Your task to perform on an android device: Open Wikipedia Image 0: 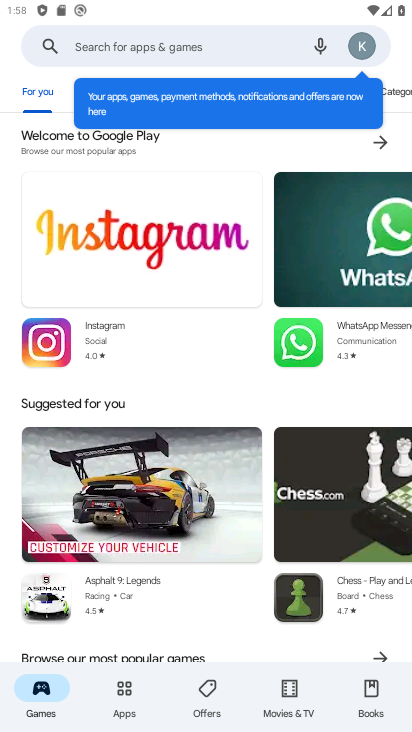
Step 0: press home button
Your task to perform on an android device: Open Wikipedia Image 1: 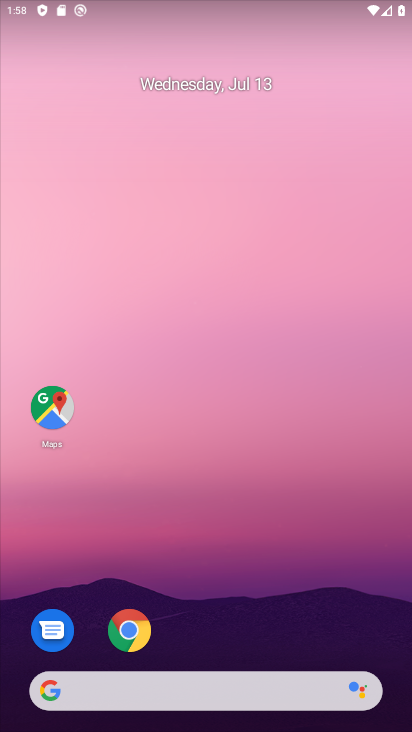
Step 1: click (143, 640)
Your task to perform on an android device: Open Wikipedia Image 2: 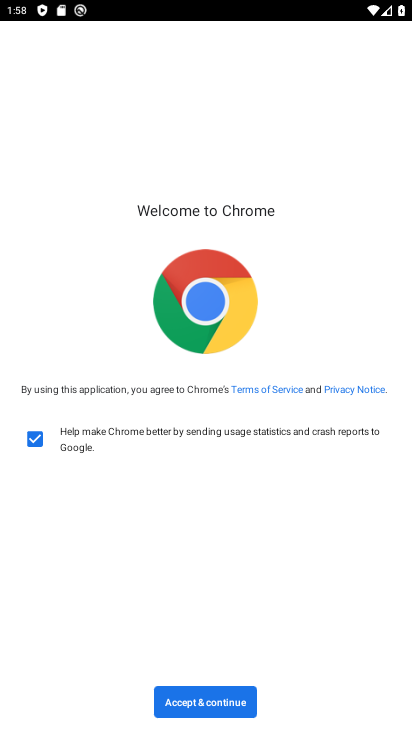
Step 2: click (189, 692)
Your task to perform on an android device: Open Wikipedia Image 3: 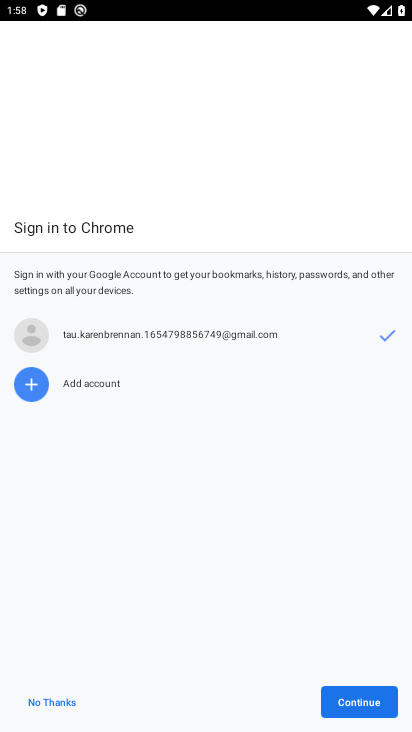
Step 3: click (350, 700)
Your task to perform on an android device: Open Wikipedia Image 4: 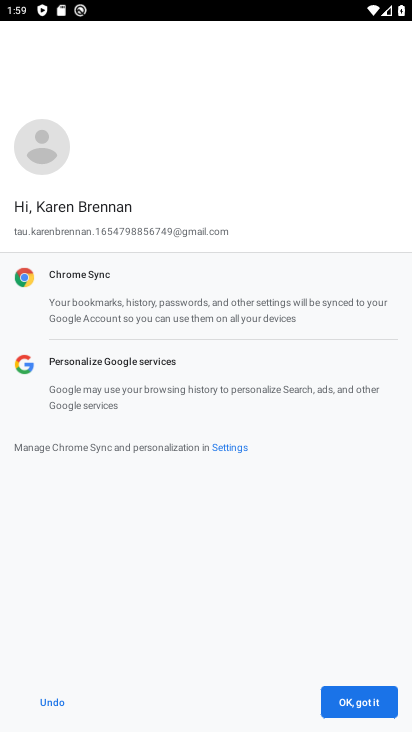
Step 4: click (362, 692)
Your task to perform on an android device: Open Wikipedia Image 5: 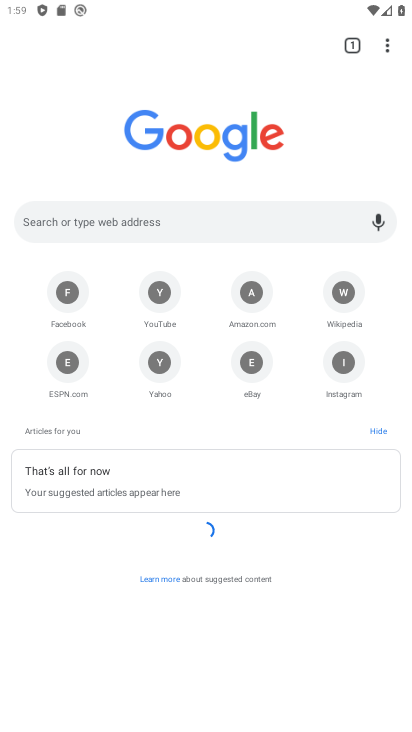
Step 5: click (212, 219)
Your task to perform on an android device: Open Wikipedia Image 6: 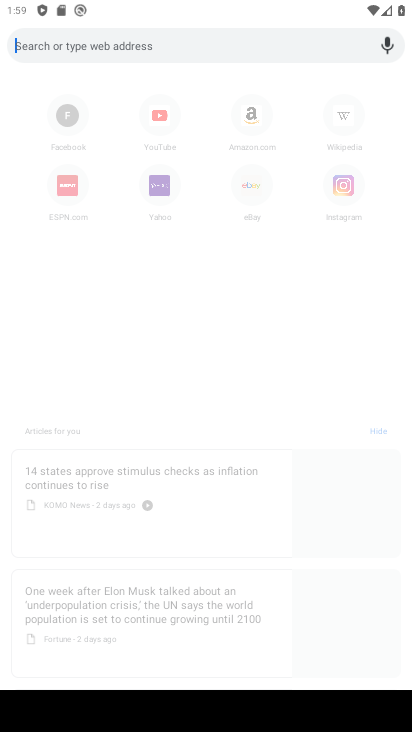
Step 6: click (322, 144)
Your task to perform on an android device: Open Wikipedia Image 7: 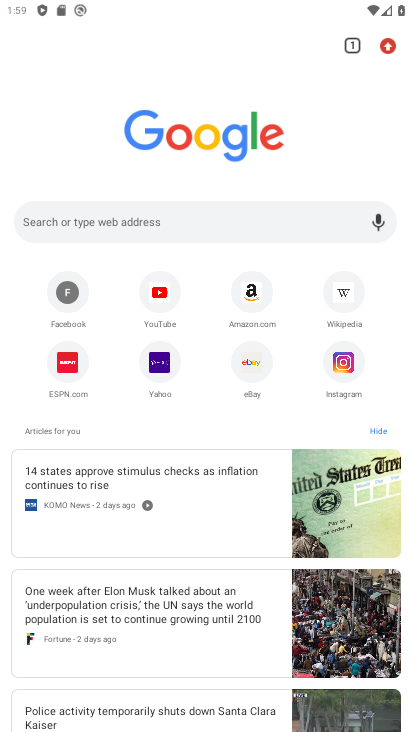
Step 7: click (352, 314)
Your task to perform on an android device: Open Wikipedia Image 8: 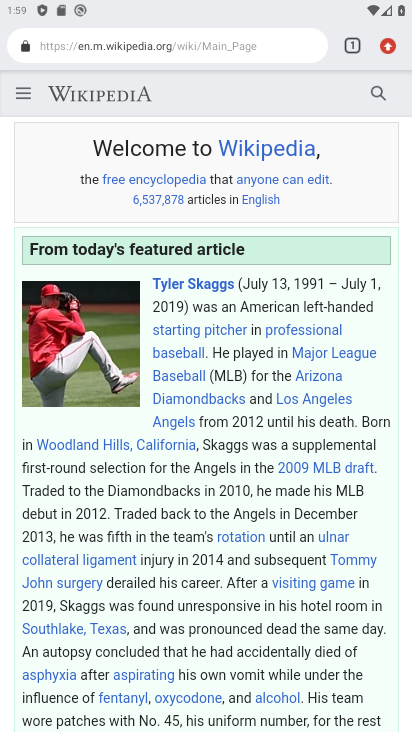
Step 8: task complete